Your task to perform on an android device: Open Google Maps and go to "Timeline" Image 0: 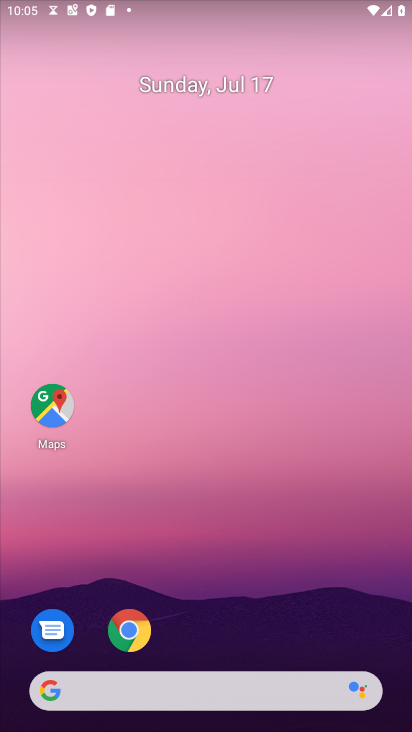
Step 0: drag from (258, 701) to (240, 13)
Your task to perform on an android device: Open Google Maps and go to "Timeline" Image 1: 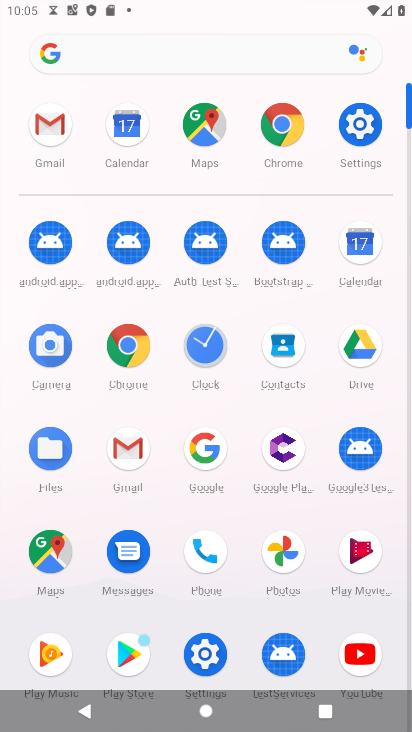
Step 1: click (43, 551)
Your task to perform on an android device: Open Google Maps and go to "Timeline" Image 2: 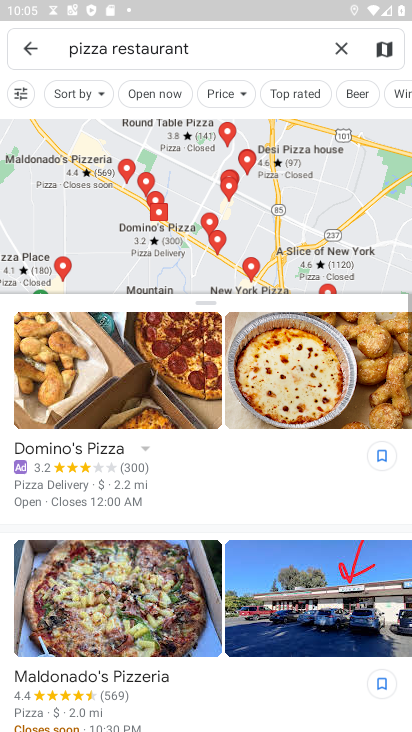
Step 2: press back button
Your task to perform on an android device: Open Google Maps and go to "Timeline" Image 3: 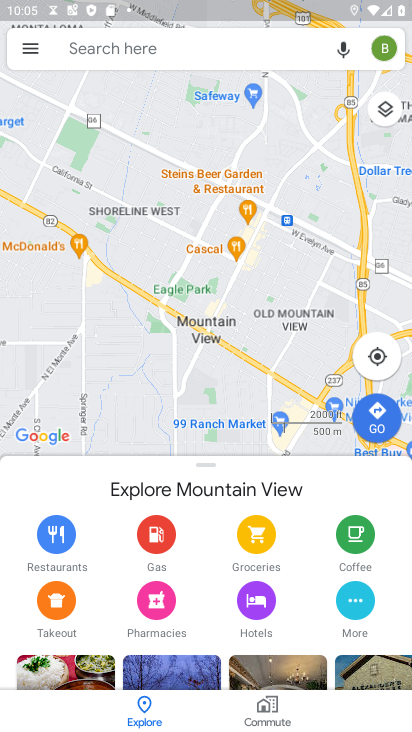
Step 3: click (21, 46)
Your task to perform on an android device: Open Google Maps and go to "Timeline" Image 4: 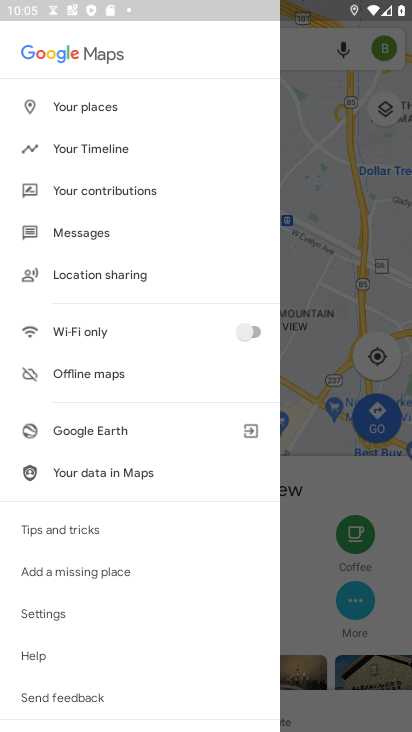
Step 4: click (91, 143)
Your task to perform on an android device: Open Google Maps and go to "Timeline" Image 5: 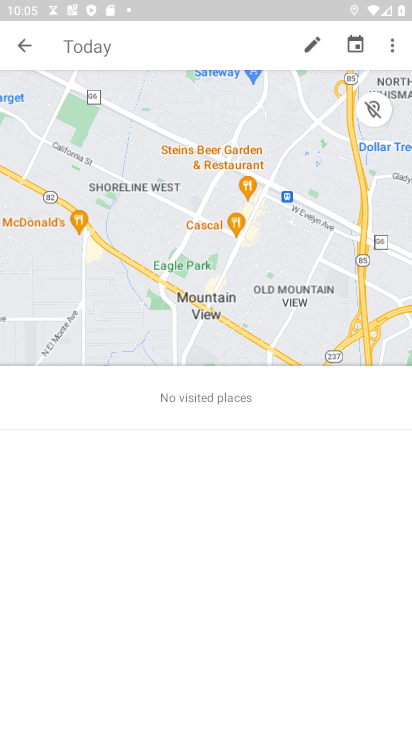
Step 5: task complete